Your task to perform on an android device: Open Wikipedia Image 0: 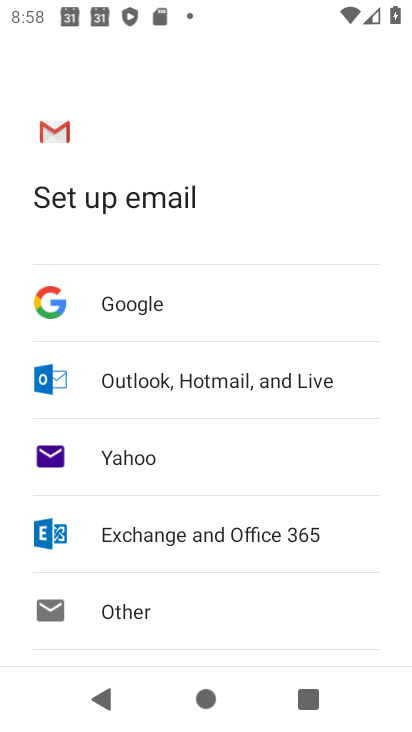
Step 0: press back button
Your task to perform on an android device: Open Wikipedia Image 1: 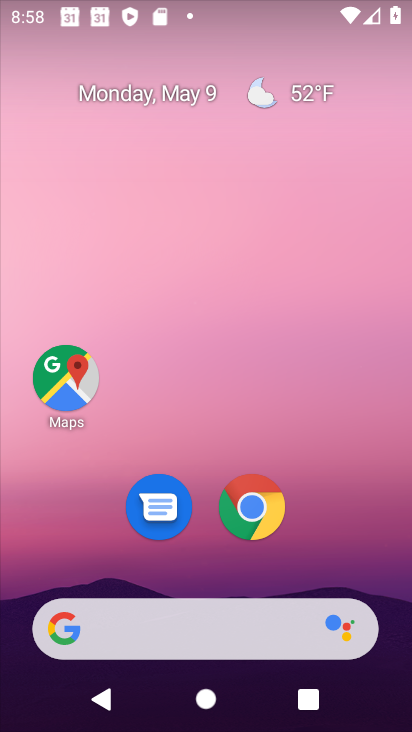
Step 1: click (248, 506)
Your task to perform on an android device: Open Wikipedia Image 2: 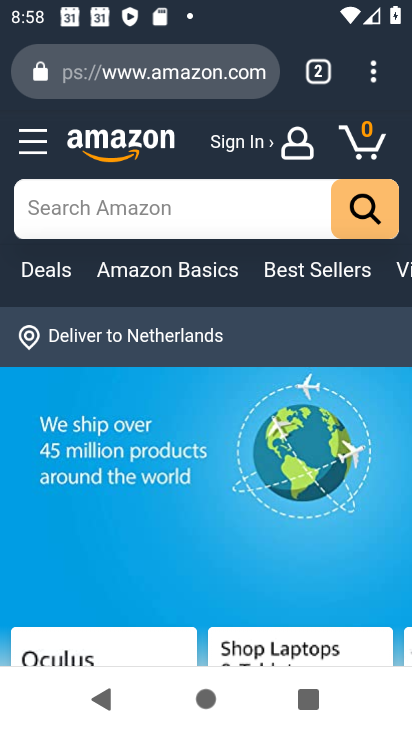
Step 2: click (200, 66)
Your task to perform on an android device: Open Wikipedia Image 3: 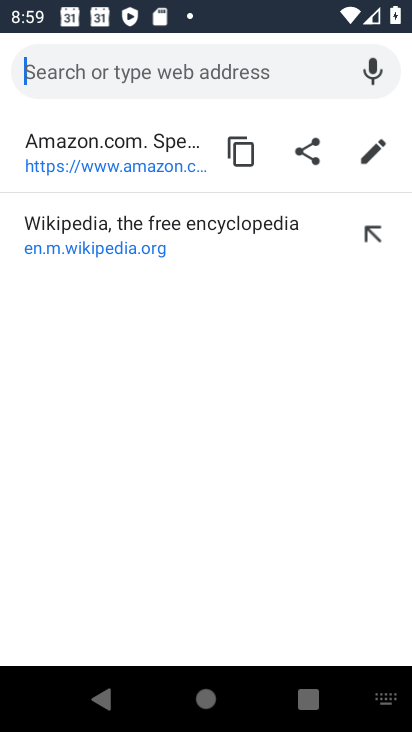
Step 3: type "Wikipedia"
Your task to perform on an android device: Open Wikipedia Image 4: 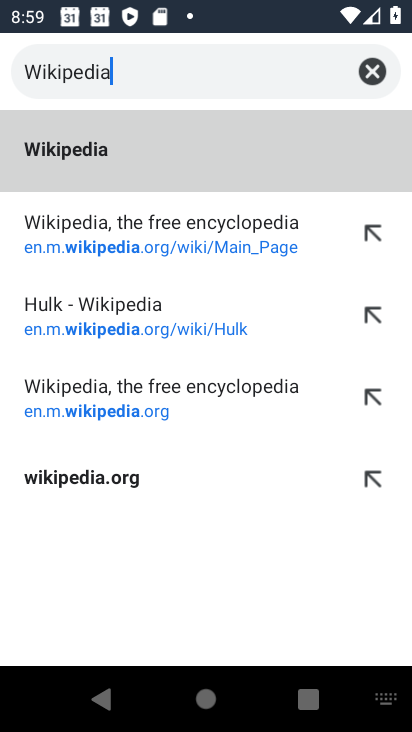
Step 4: click (104, 157)
Your task to perform on an android device: Open Wikipedia Image 5: 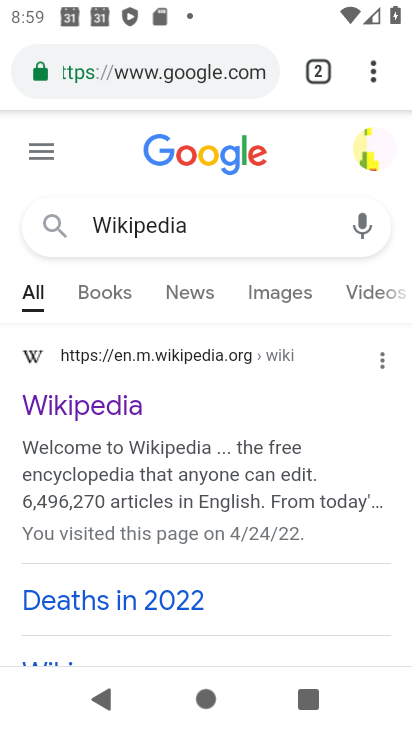
Step 5: click (85, 406)
Your task to perform on an android device: Open Wikipedia Image 6: 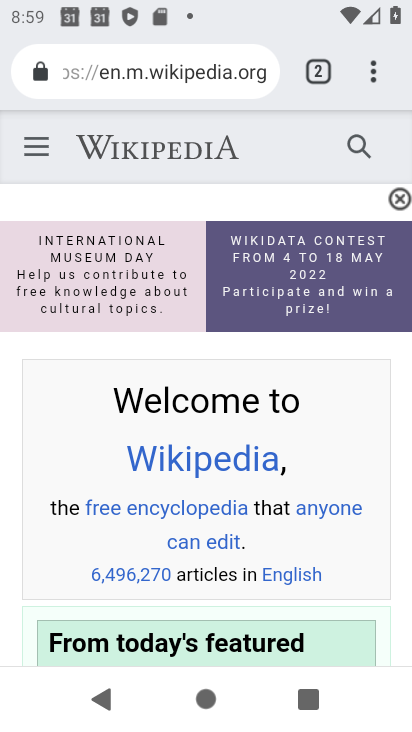
Step 6: task complete